Your task to perform on an android device: Toggle the flashlight Image 0: 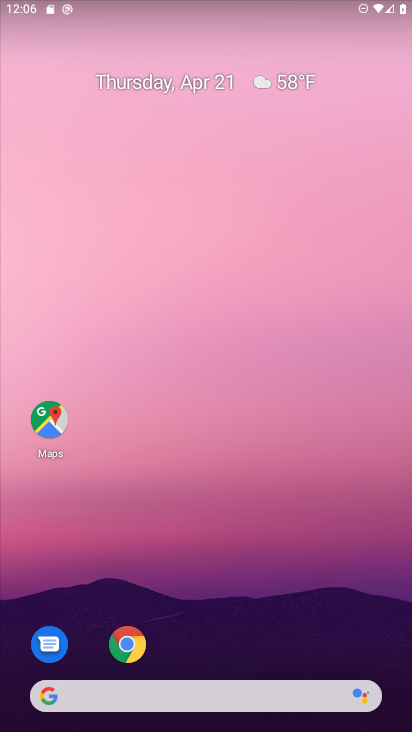
Step 0: drag from (198, 642) to (178, 117)
Your task to perform on an android device: Toggle the flashlight Image 1: 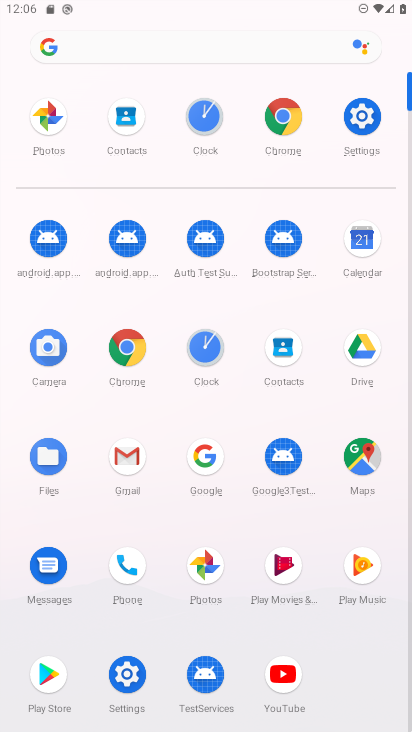
Step 1: click (353, 115)
Your task to perform on an android device: Toggle the flashlight Image 2: 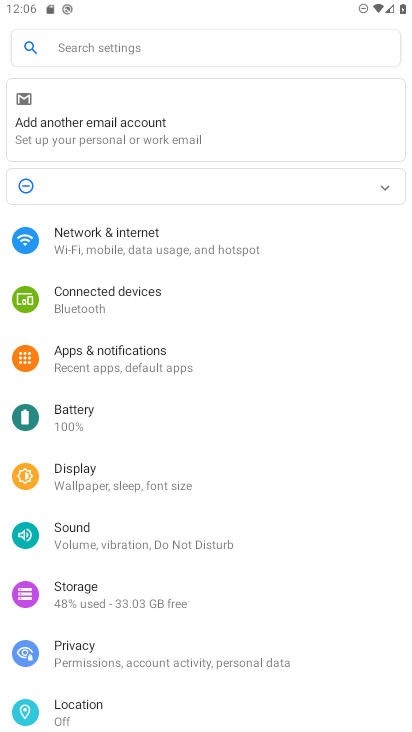
Step 2: click (110, 489)
Your task to perform on an android device: Toggle the flashlight Image 3: 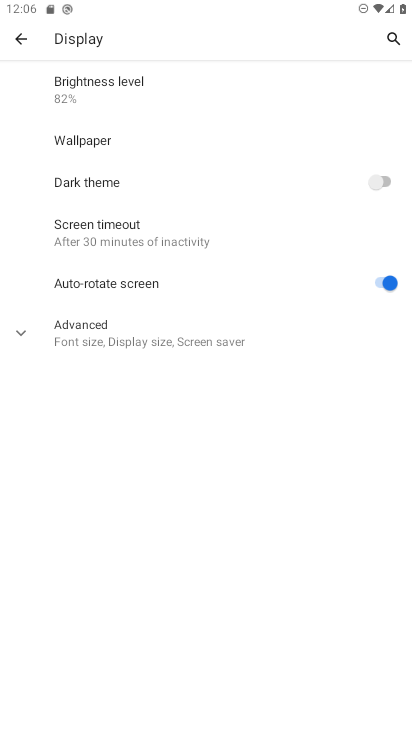
Step 3: task complete